Your task to perform on an android device: Open CNN.com Image 0: 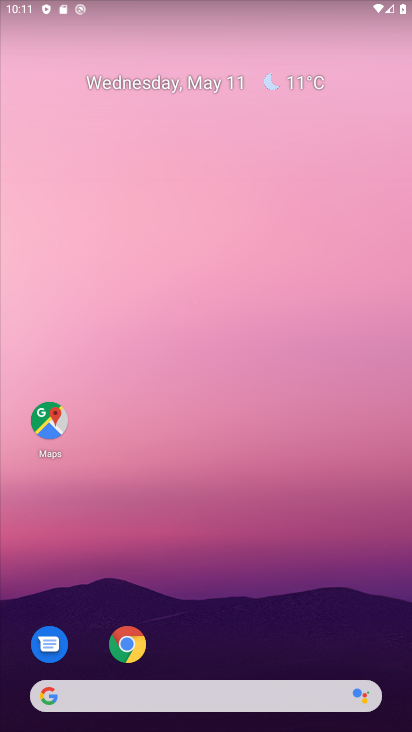
Step 0: click (131, 651)
Your task to perform on an android device: Open CNN.com Image 1: 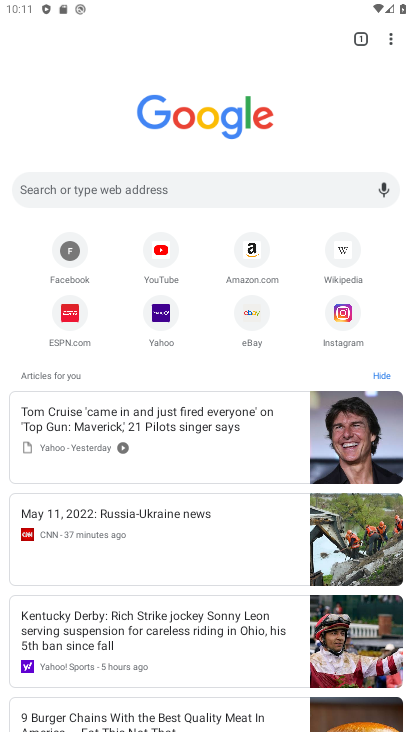
Step 1: click (85, 185)
Your task to perform on an android device: Open CNN.com Image 2: 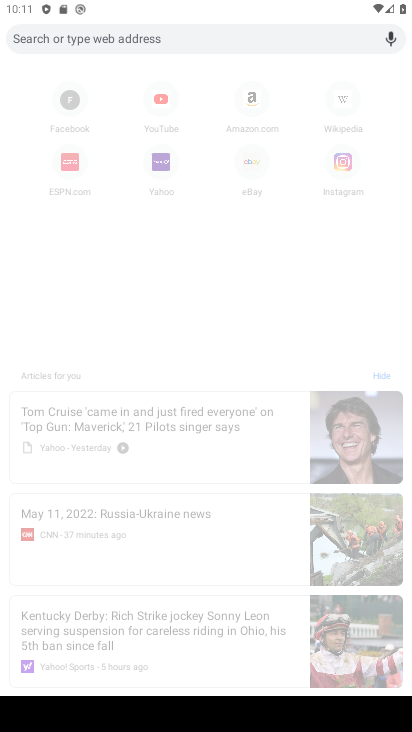
Step 2: type "cnn.com"
Your task to perform on an android device: Open CNN.com Image 3: 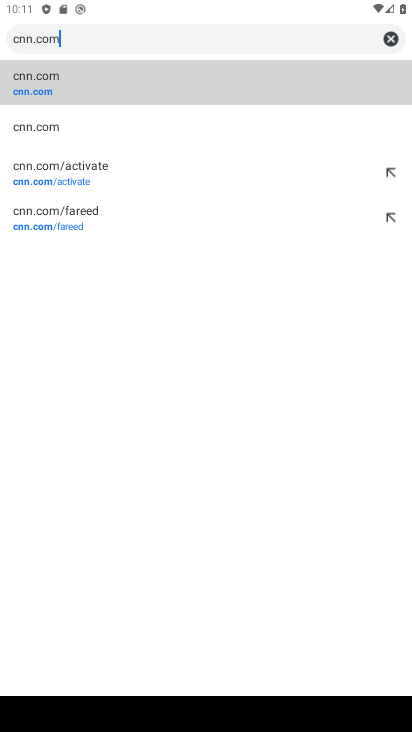
Step 3: click (41, 92)
Your task to perform on an android device: Open CNN.com Image 4: 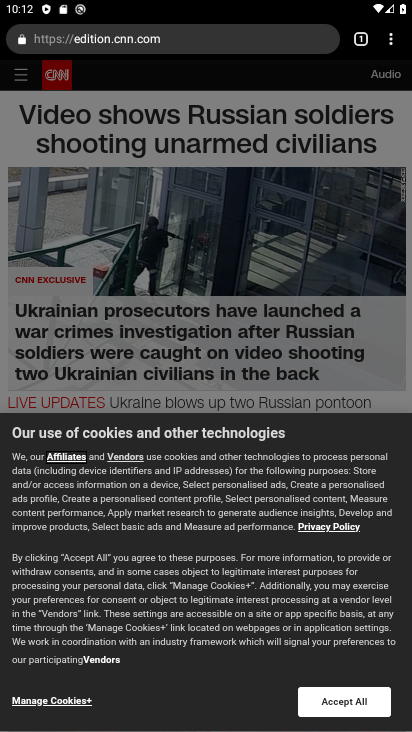
Step 4: task complete